Your task to perform on an android device: Turn off the flashlight Image 0: 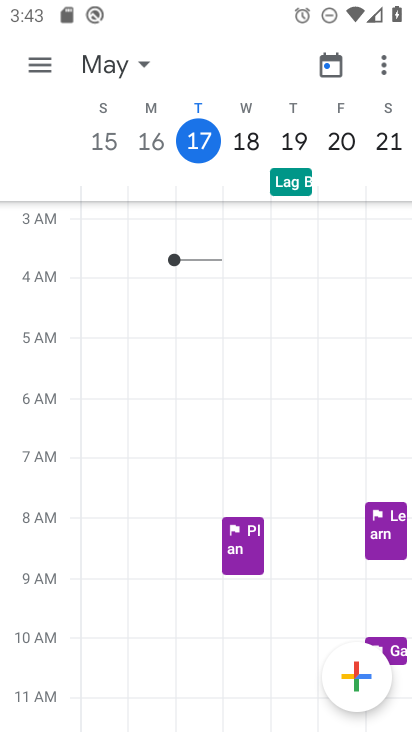
Step 0: press back button
Your task to perform on an android device: Turn off the flashlight Image 1: 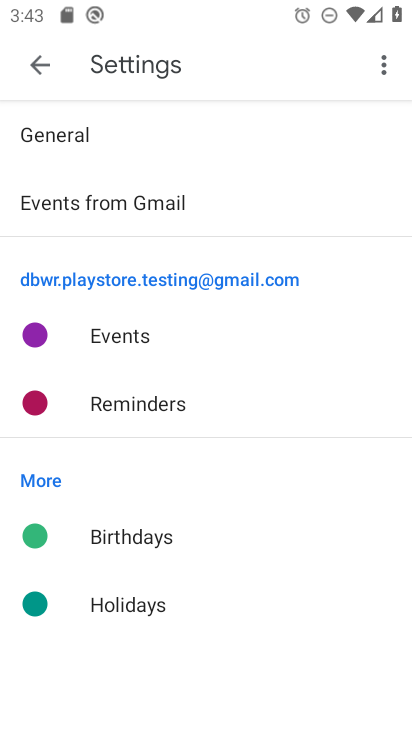
Step 1: press back button
Your task to perform on an android device: Turn off the flashlight Image 2: 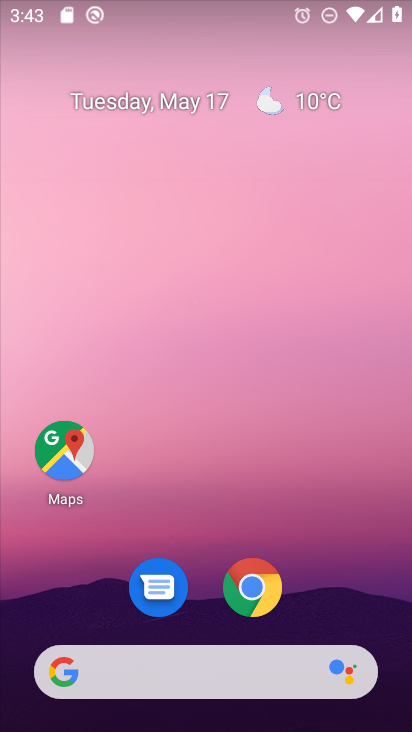
Step 2: drag from (325, 589) to (289, 48)
Your task to perform on an android device: Turn off the flashlight Image 3: 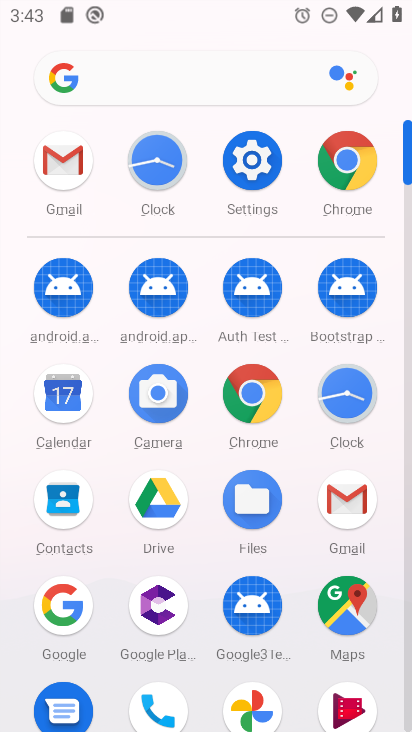
Step 3: click (250, 156)
Your task to perform on an android device: Turn off the flashlight Image 4: 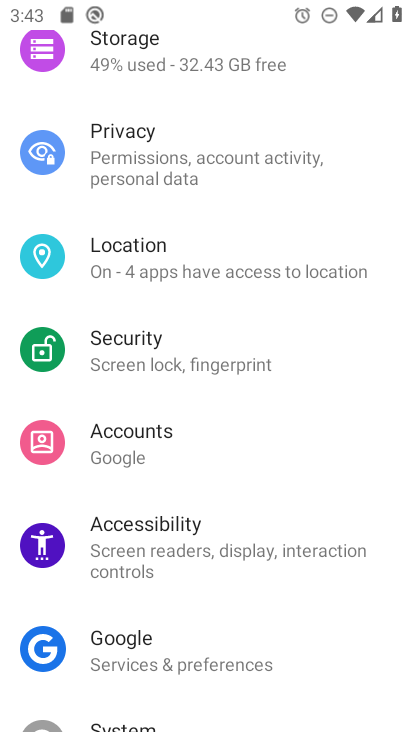
Step 4: drag from (241, 128) to (249, 504)
Your task to perform on an android device: Turn off the flashlight Image 5: 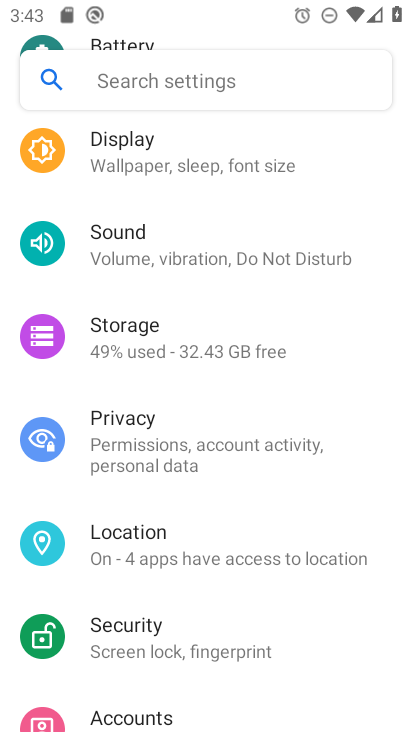
Step 5: drag from (267, 215) to (253, 609)
Your task to perform on an android device: Turn off the flashlight Image 6: 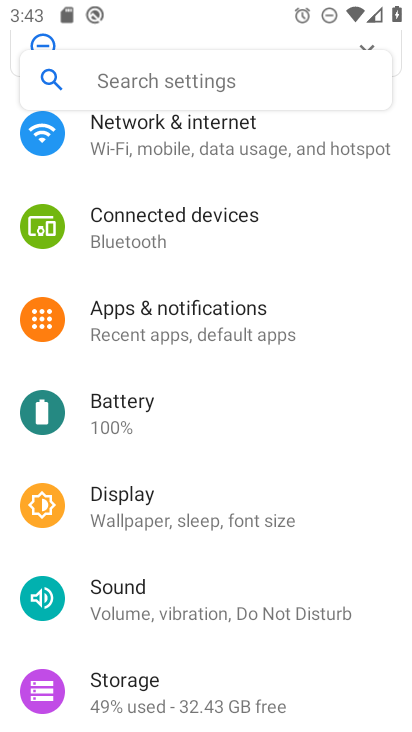
Step 6: drag from (324, 175) to (255, 596)
Your task to perform on an android device: Turn off the flashlight Image 7: 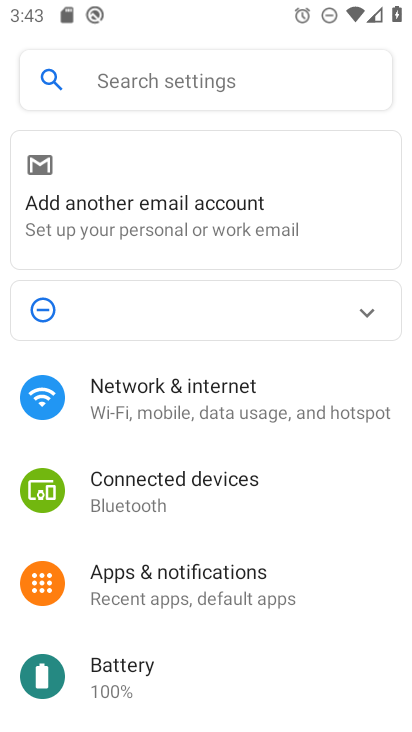
Step 7: click (206, 392)
Your task to perform on an android device: Turn off the flashlight Image 8: 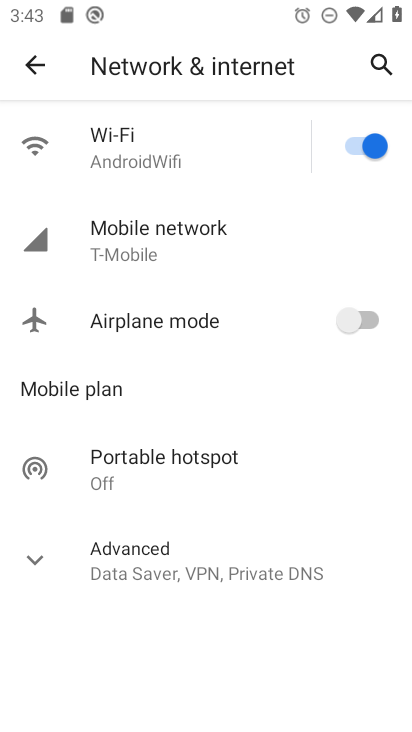
Step 8: click (43, 544)
Your task to perform on an android device: Turn off the flashlight Image 9: 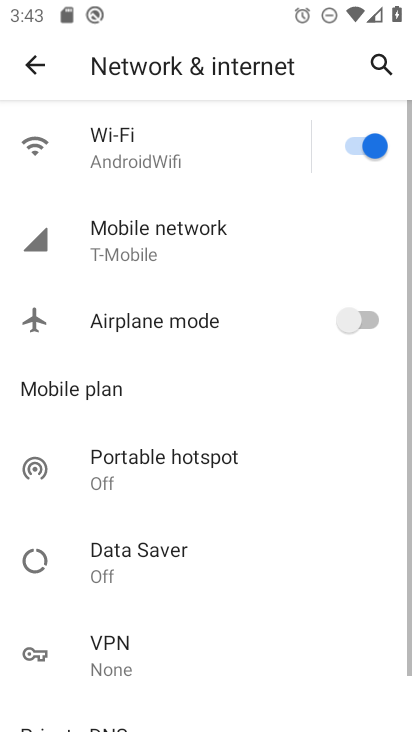
Step 9: task complete